Your task to perform on an android device: Show me popular games on the Play Store Image 0: 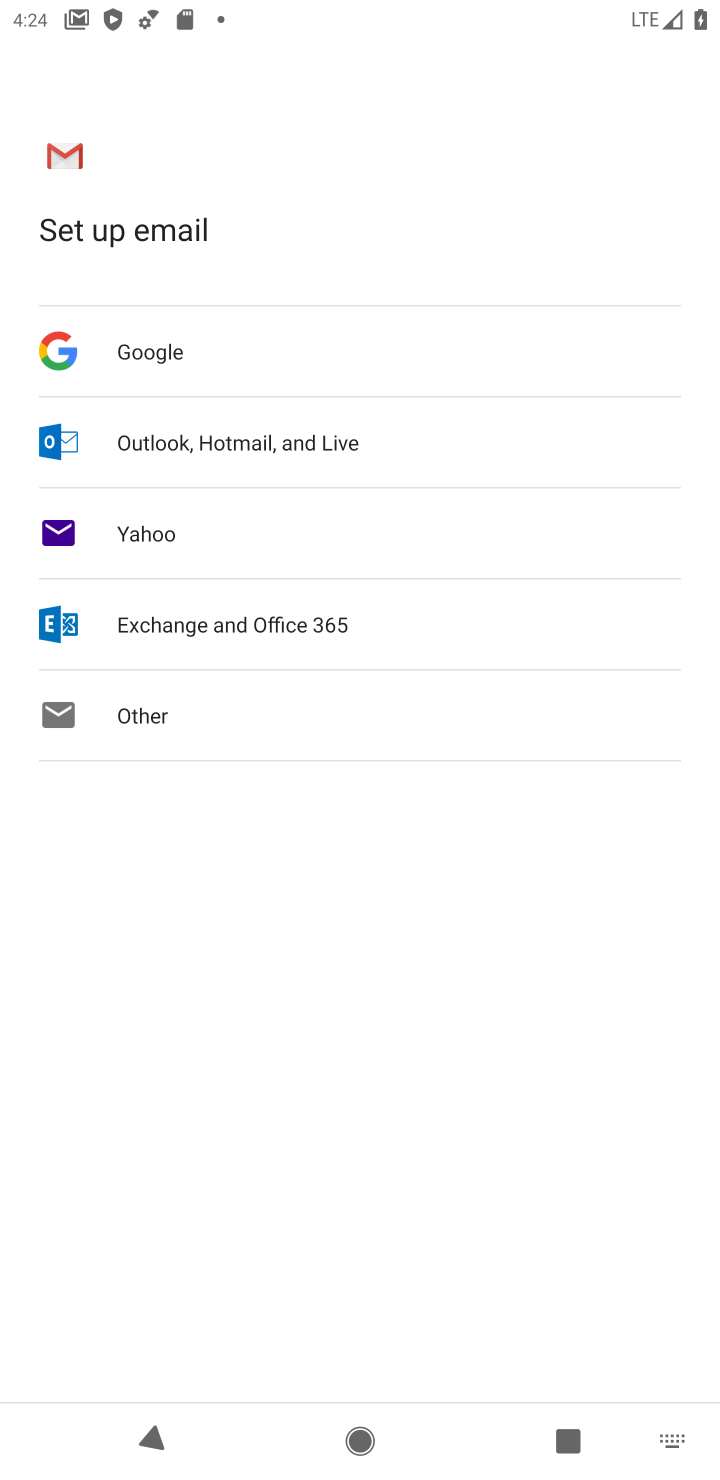
Step 0: press home button
Your task to perform on an android device: Show me popular games on the Play Store Image 1: 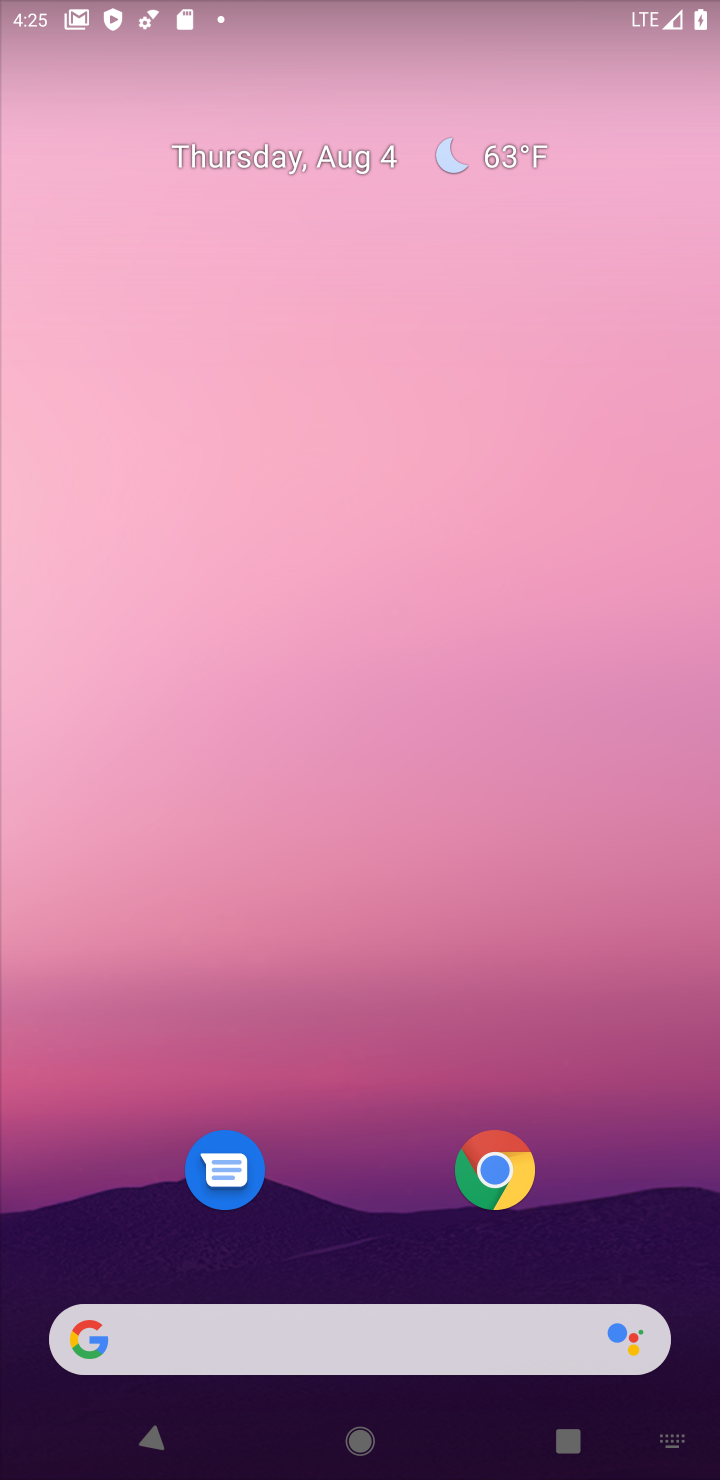
Step 1: drag from (601, 1259) to (407, 201)
Your task to perform on an android device: Show me popular games on the Play Store Image 2: 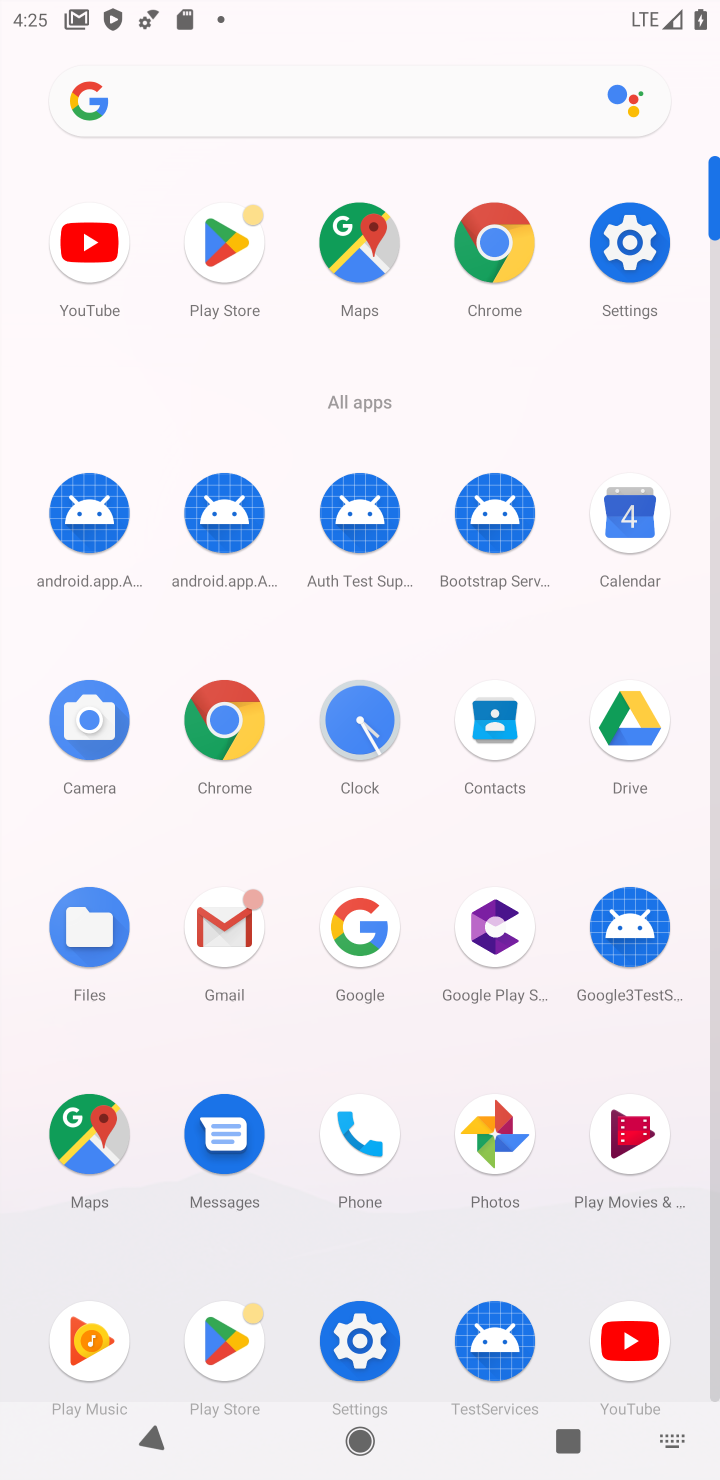
Step 2: click (215, 1365)
Your task to perform on an android device: Show me popular games on the Play Store Image 3: 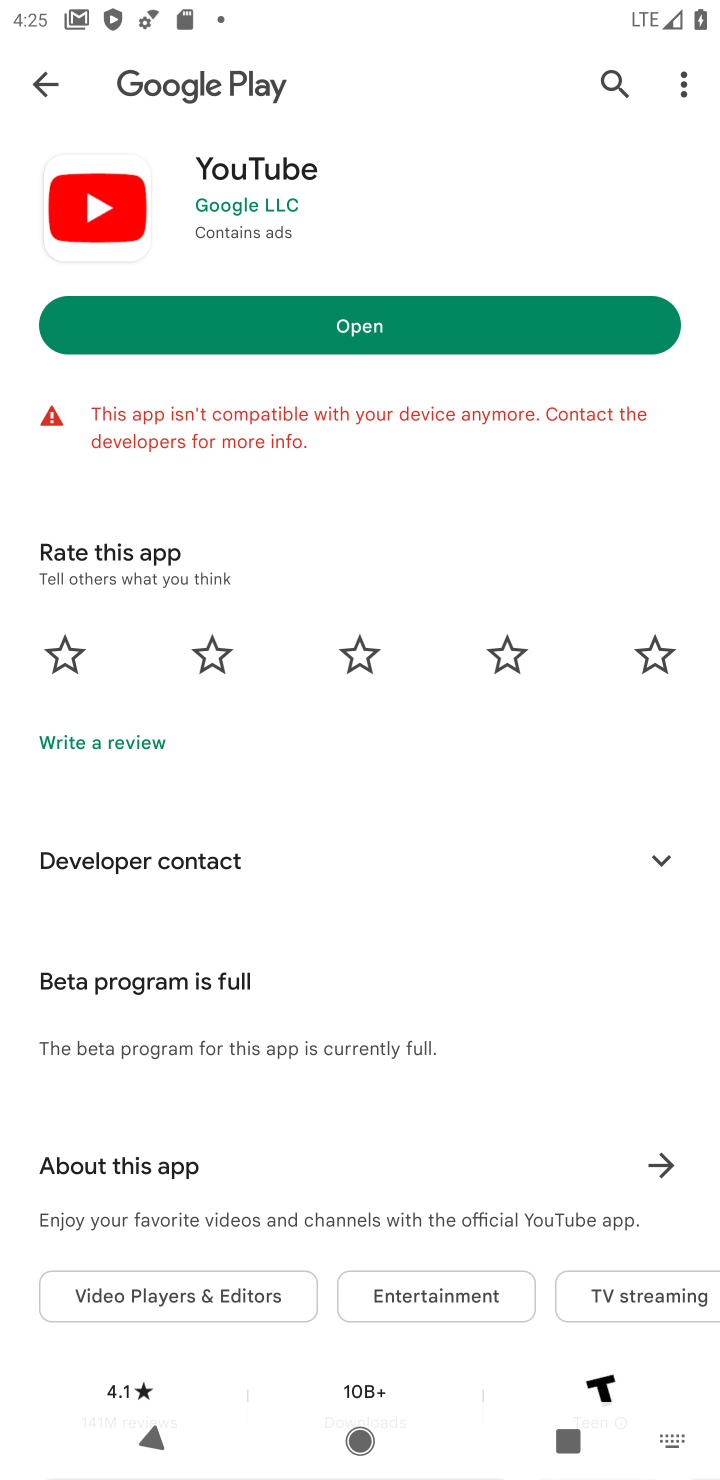
Step 3: click (37, 101)
Your task to perform on an android device: Show me popular games on the Play Store Image 4: 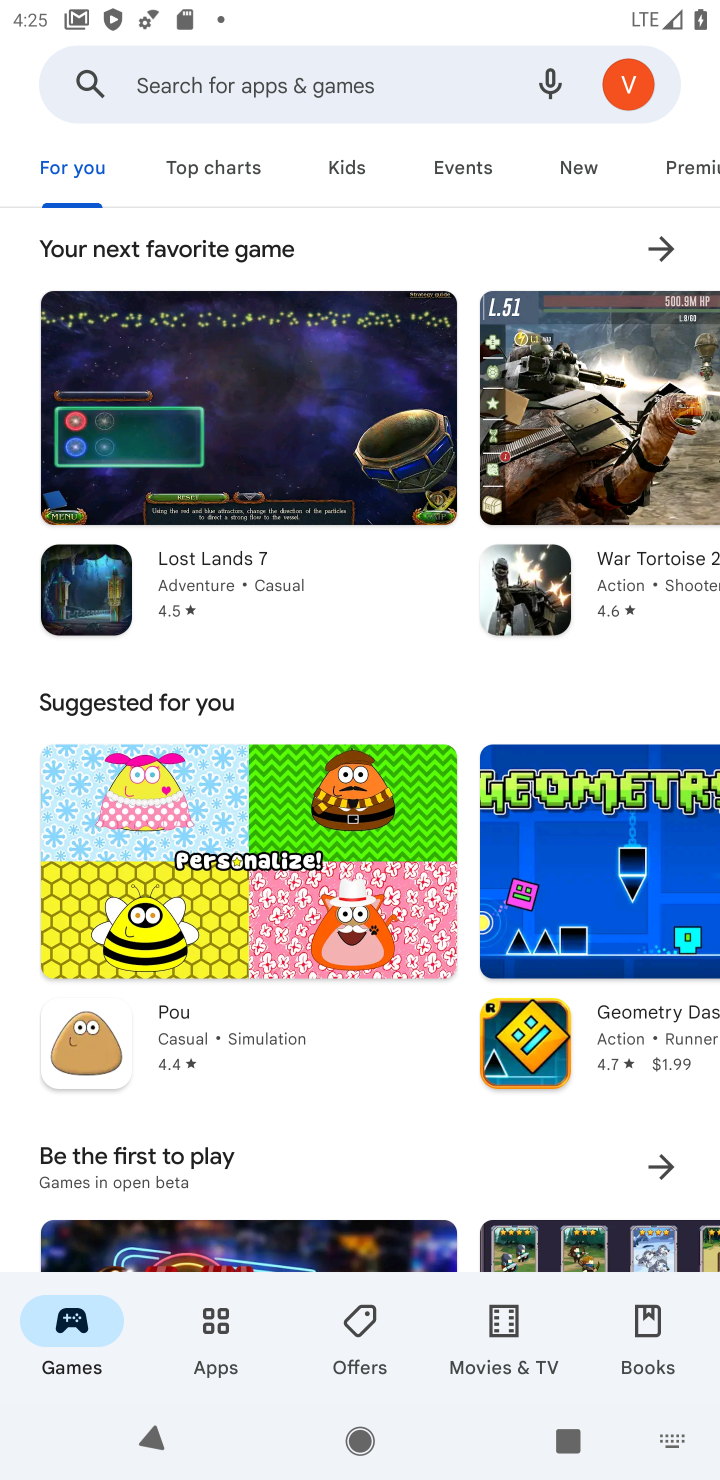
Step 4: task complete